Your task to perform on an android device: Open Chrome and go to the settings page Image 0: 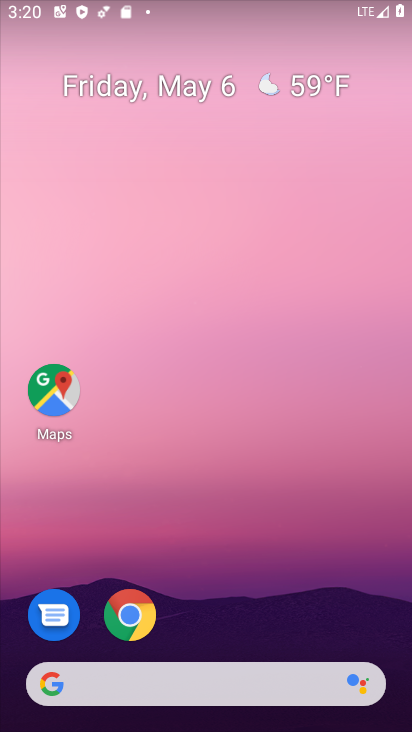
Step 0: drag from (246, 599) to (251, 314)
Your task to perform on an android device: Open Chrome and go to the settings page Image 1: 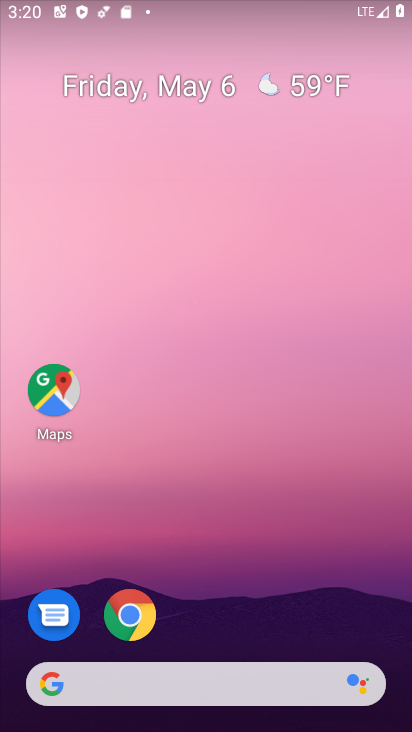
Step 1: drag from (269, 501) to (255, 247)
Your task to perform on an android device: Open Chrome and go to the settings page Image 2: 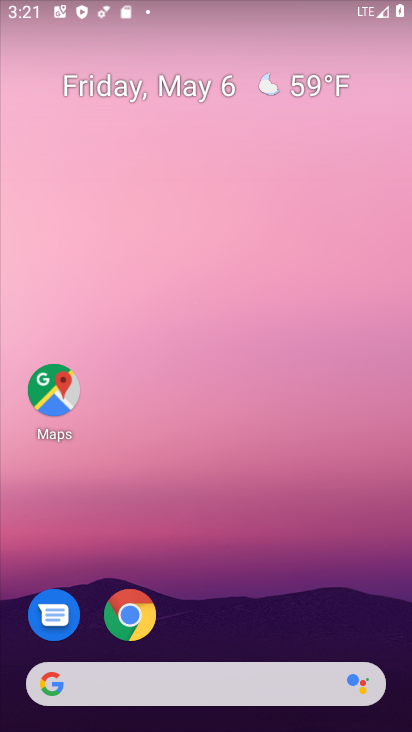
Step 2: drag from (272, 627) to (246, 218)
Your task to perform on an android device: Open Chrome and go to the settings page Image 3: 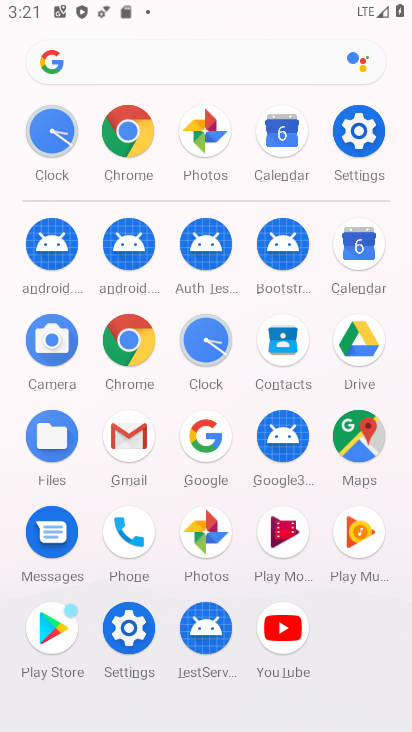
Step 3: click (116, 335)
Your task to perform on an android device: Open Chrome and go to the settings page Image 4: 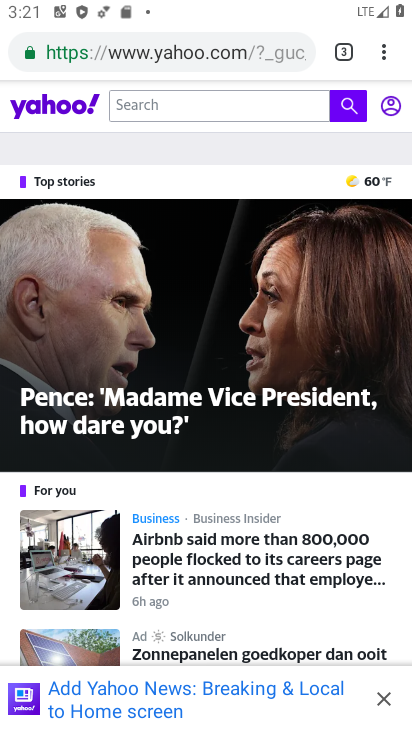
Step 4: click (374, 45)
Your task to perform on an android device: Open Chrome and go to the settings page Image 5: 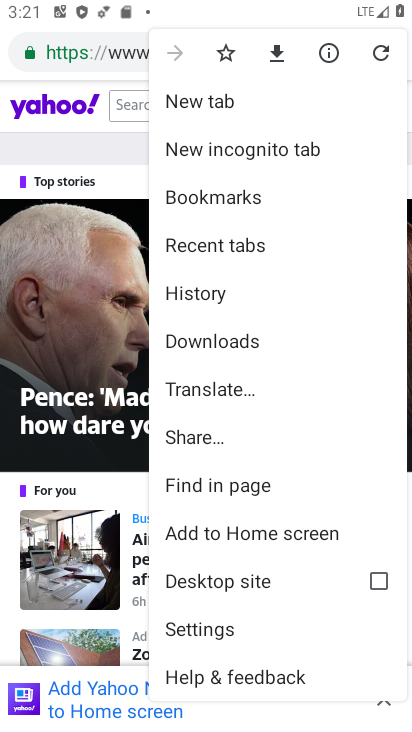
Step 5: click (258, 631)
Your task to perform on an android device: Open Chrome and go to the settings page Image 6: 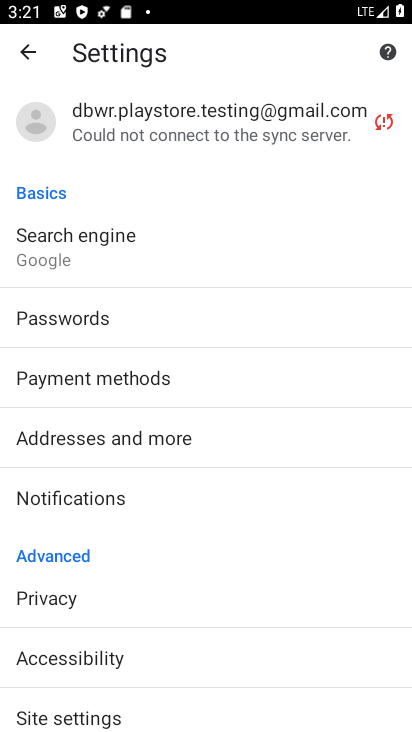
Step 6: task complete